Your task to perform on an android device: turn off smart reply in the gmail app Image 0: 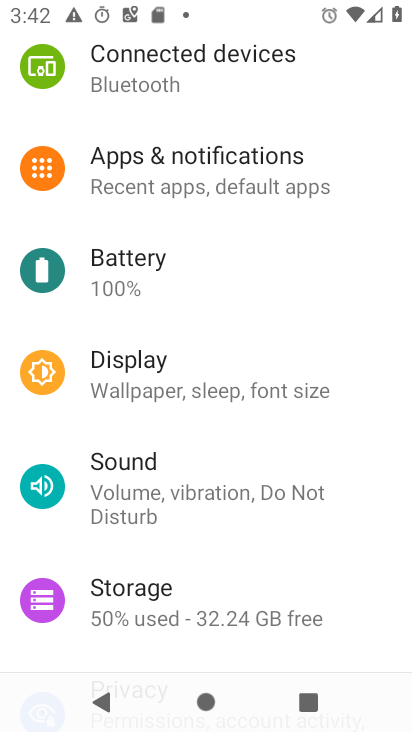
Step 0: press home button
Your task to perform on an android device: turn off smart reply in the gmail app Image 1: 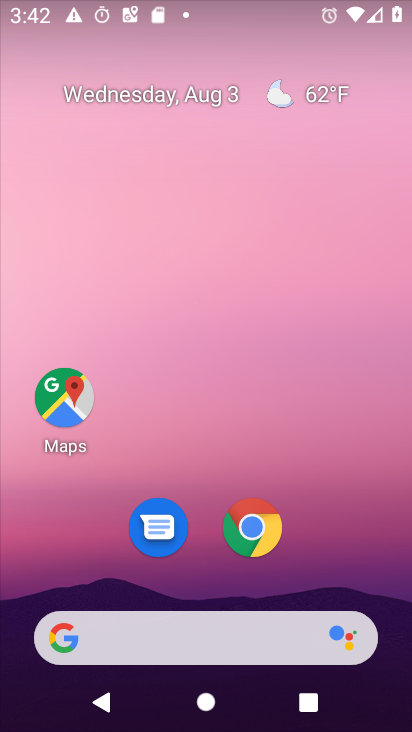
Step 1: drag from (310, 498) to (324, 126)
Your task to perform on an android device: turn off smart reply in the gmail app Image 2: 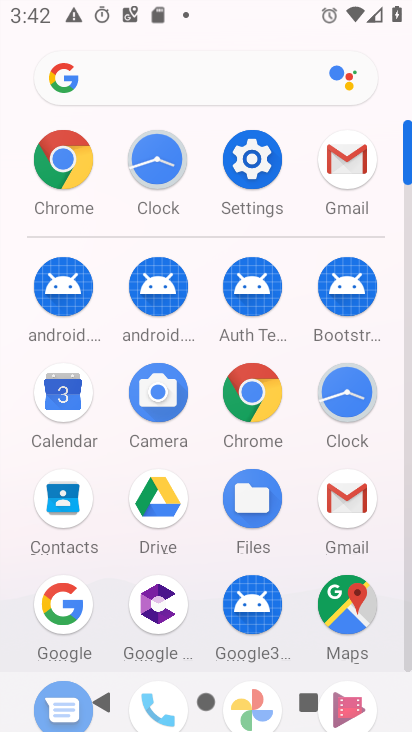
Step 2: click (340, 171)
Your task to perform on an android device: turn off smart reply in the gmail app Image 3: 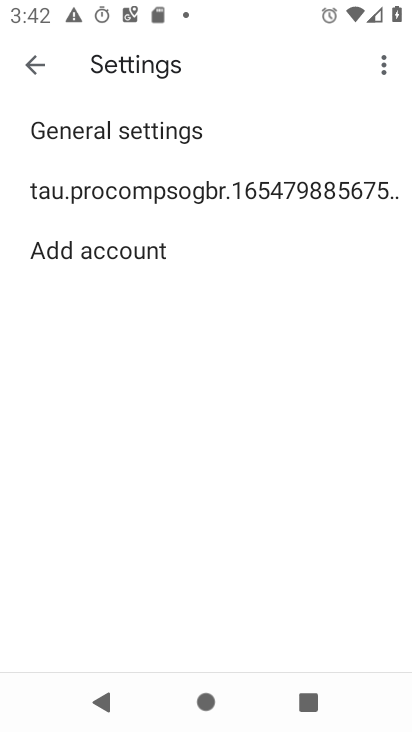
Step 3: click (68, 186)
Your task to perform on an android device: turn off smart reply in the gmail app Image 4: 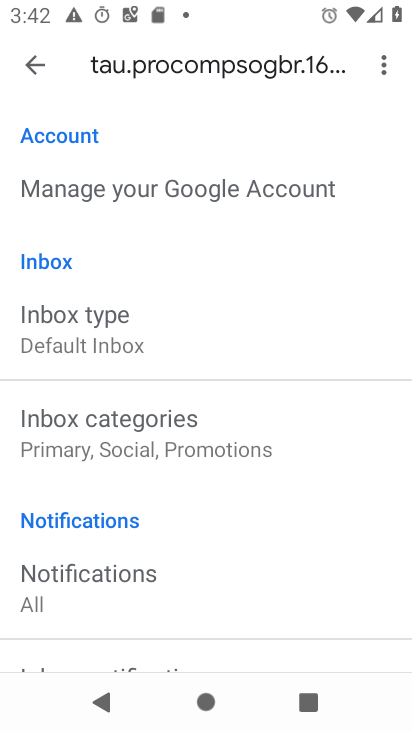
Step 4: drag from (252, 523) to (349, 216)
Your task to perform on an android device: turn off smart reply in the gmail app Image 5: 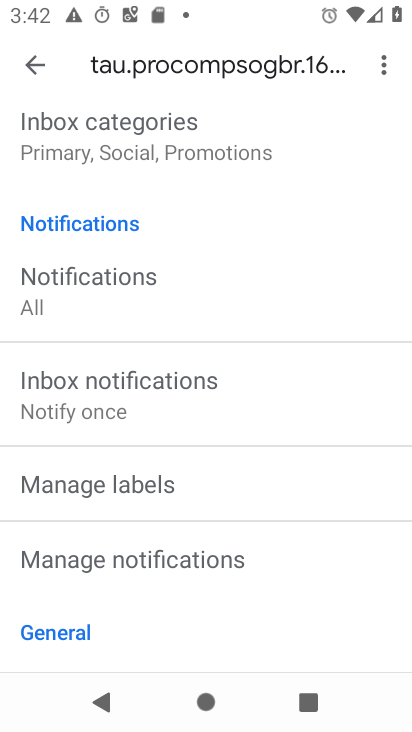
Step 5: drag from (285, 558) to (351, 269)
Your task to perform on an android device: turn off smart reply in the gmail app Image 6: 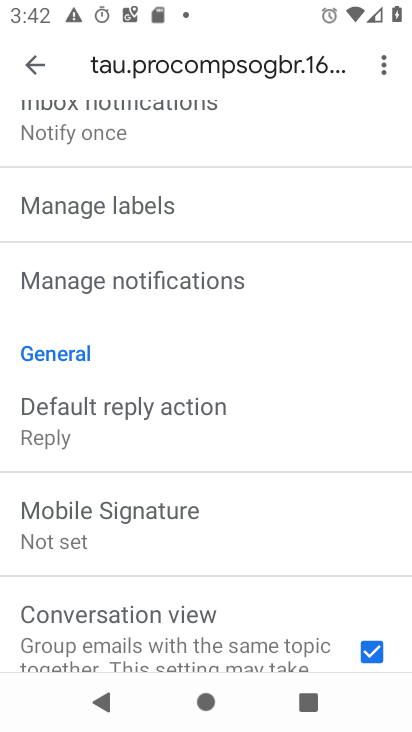
Step 6: drag from (264, 496) to (340, 236)
Your task to perform on an android device: turn off smart reply in the gmail app Image 7: 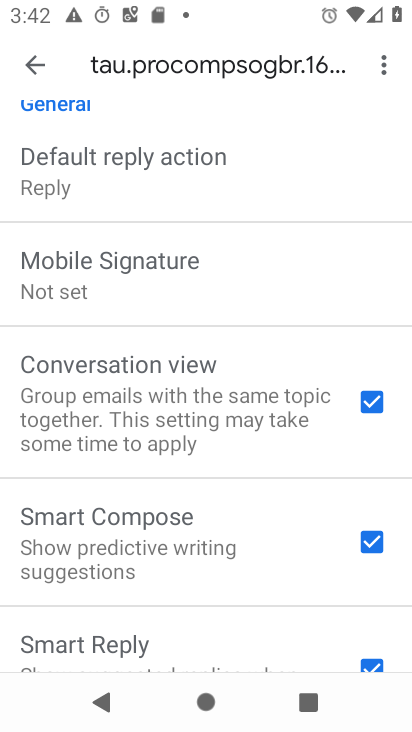
Step 7: drag from (239, 634) to (295, 379)
Your task to perform on an android device: turn off smart reply in the gmail app Image 8: 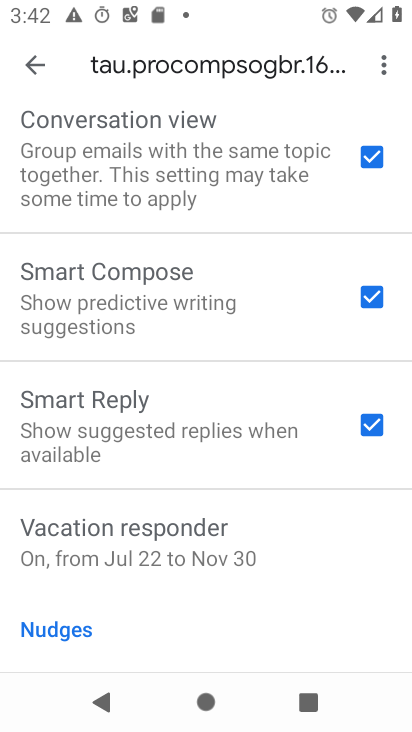
Step 8: click (369, 426)
Your task to perform on an android device: turn off smart reply in the gmail app Image 9: 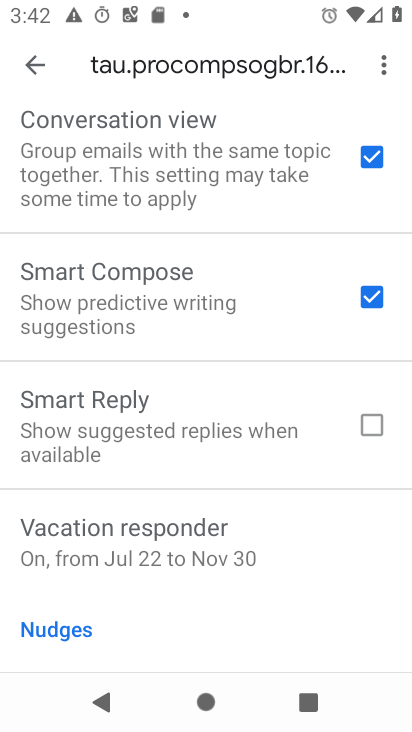
Step 9: task complete